Your task to perform on an android device: Open Reddit.com Image 0: 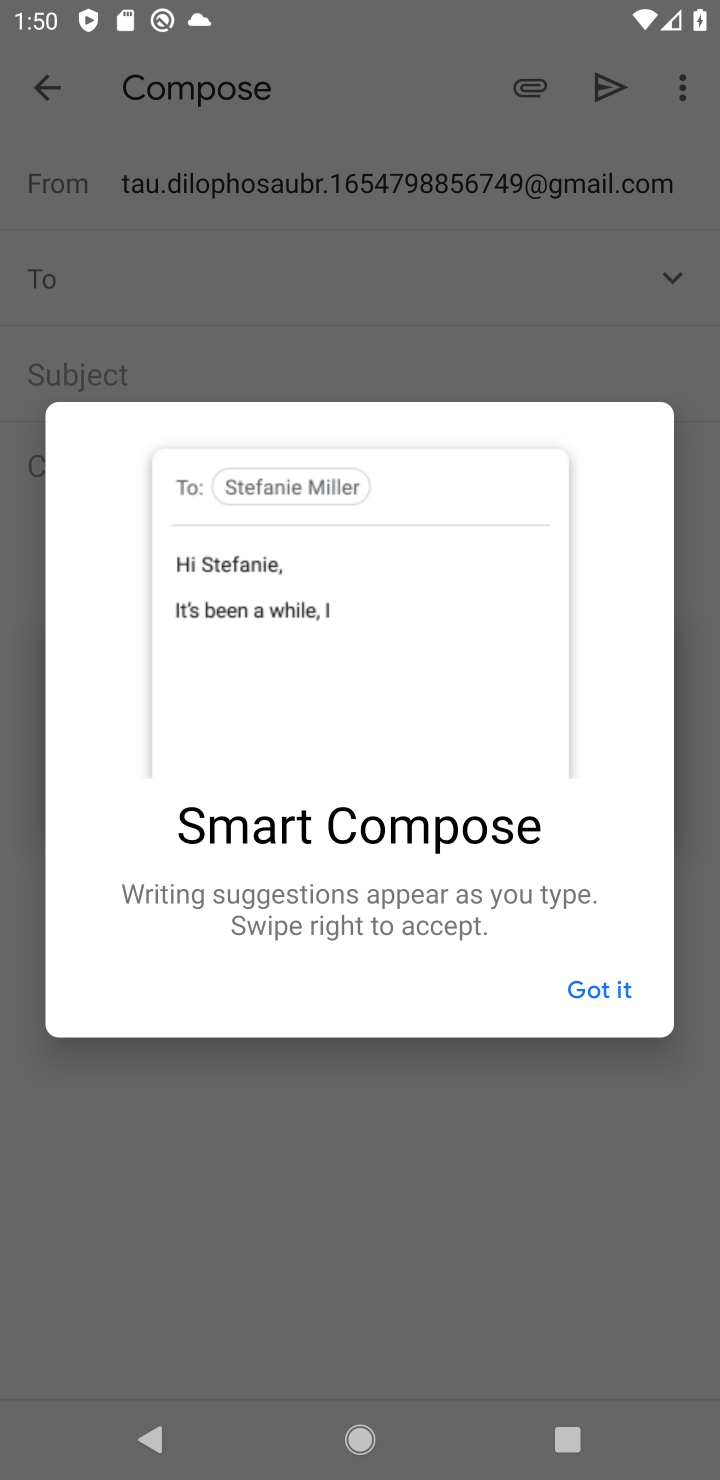
Step 0: press home button
Your task to perform on an android device: Open Reddit.com Image 1: 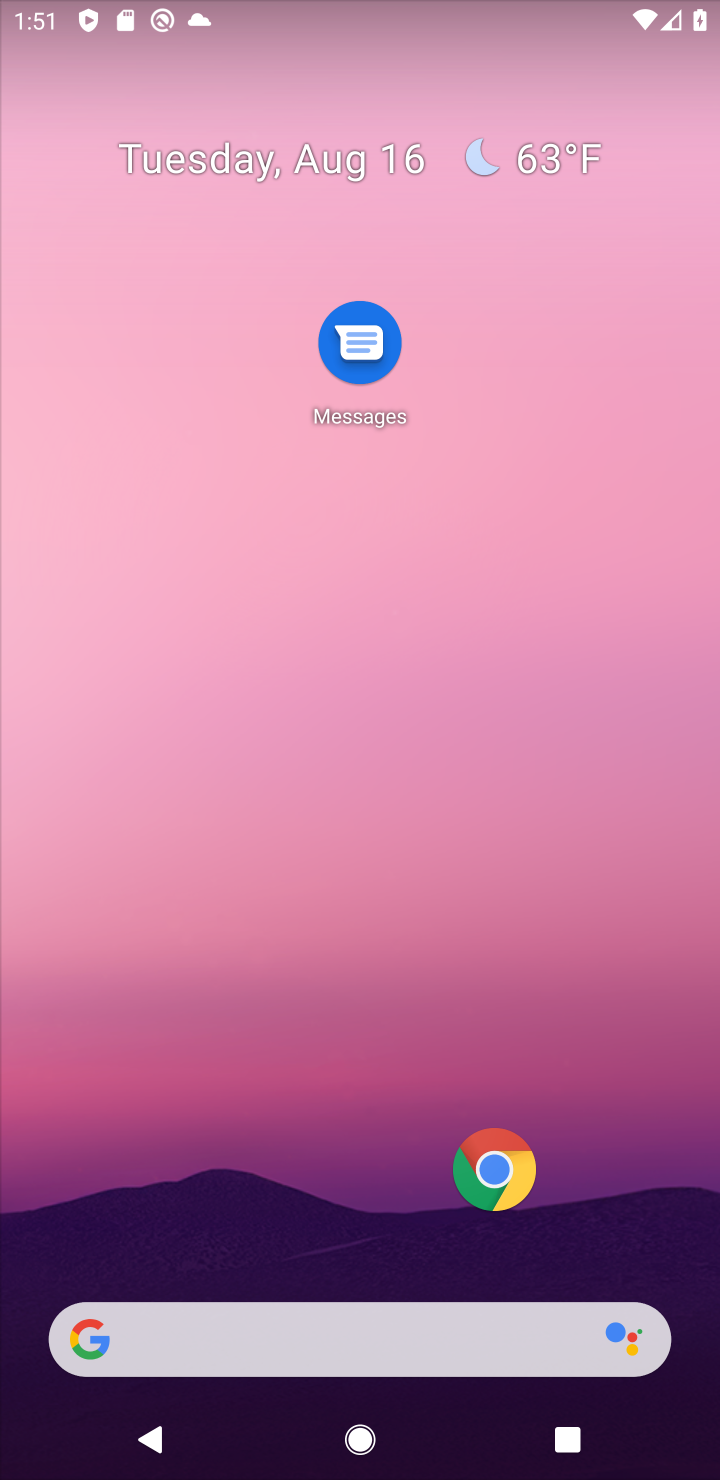
Step 1: click (173, 1345)
Your task to perform on an android device: Open Reddit.com Image 2: 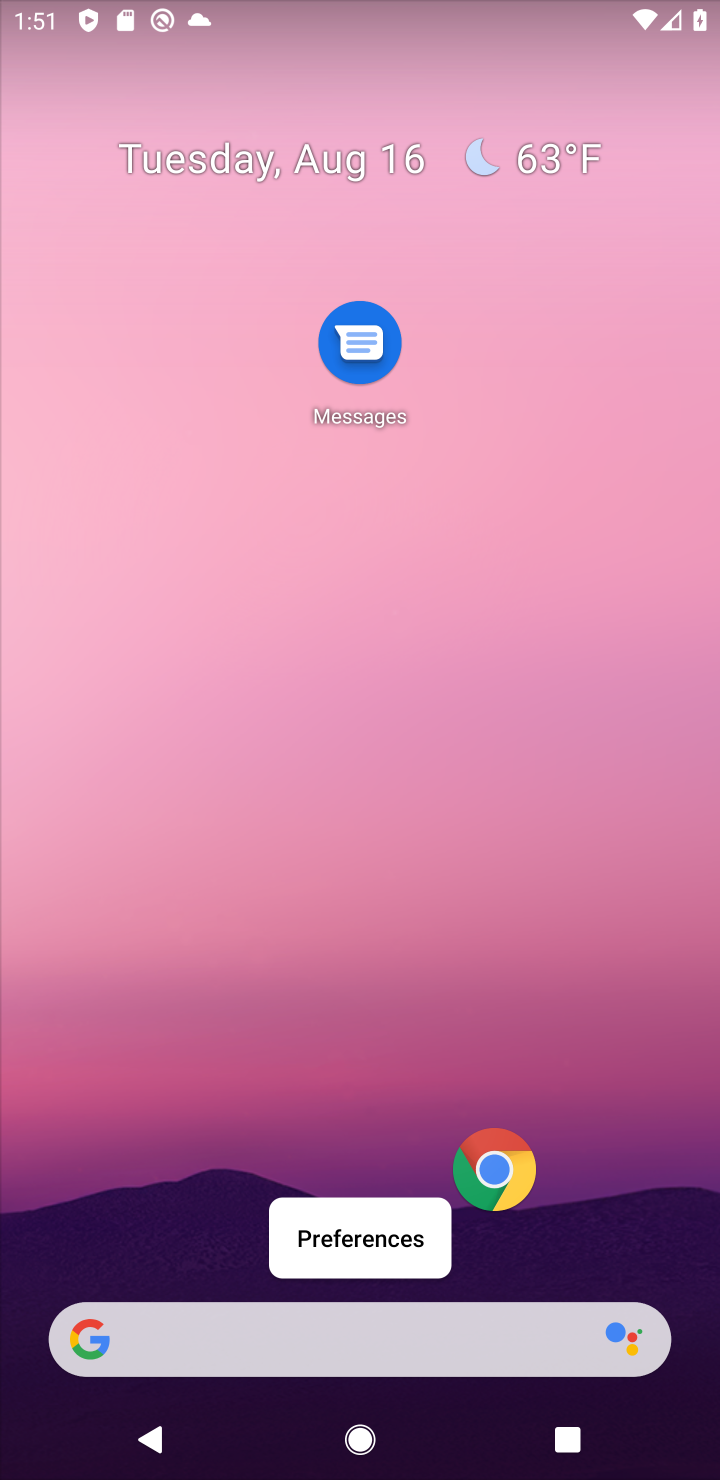
Step 2: click (173, 1345)
Your task to perform on an android device: Open Reddit.com Image 3: 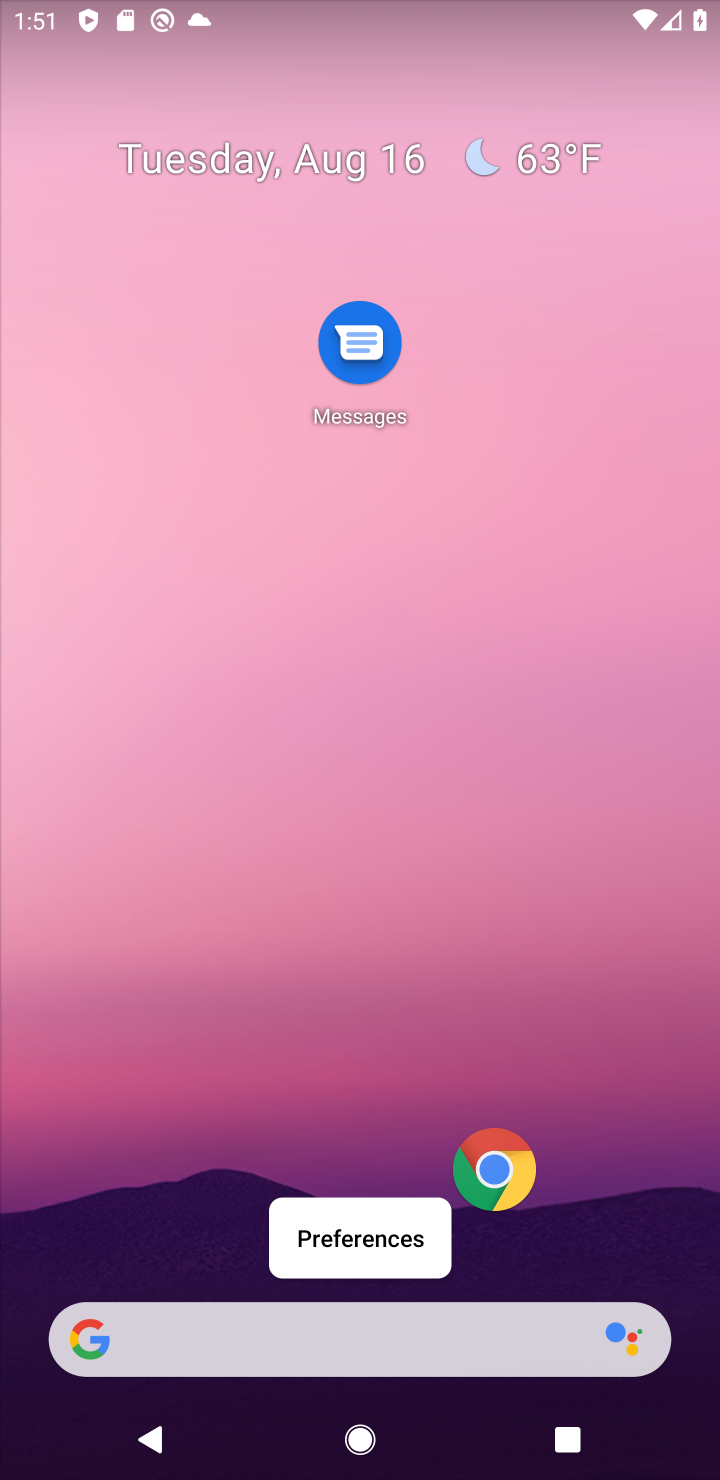
Step 3: click (173, 1345)
Your task to perform on an android device: Open Reddit.com Image 4: 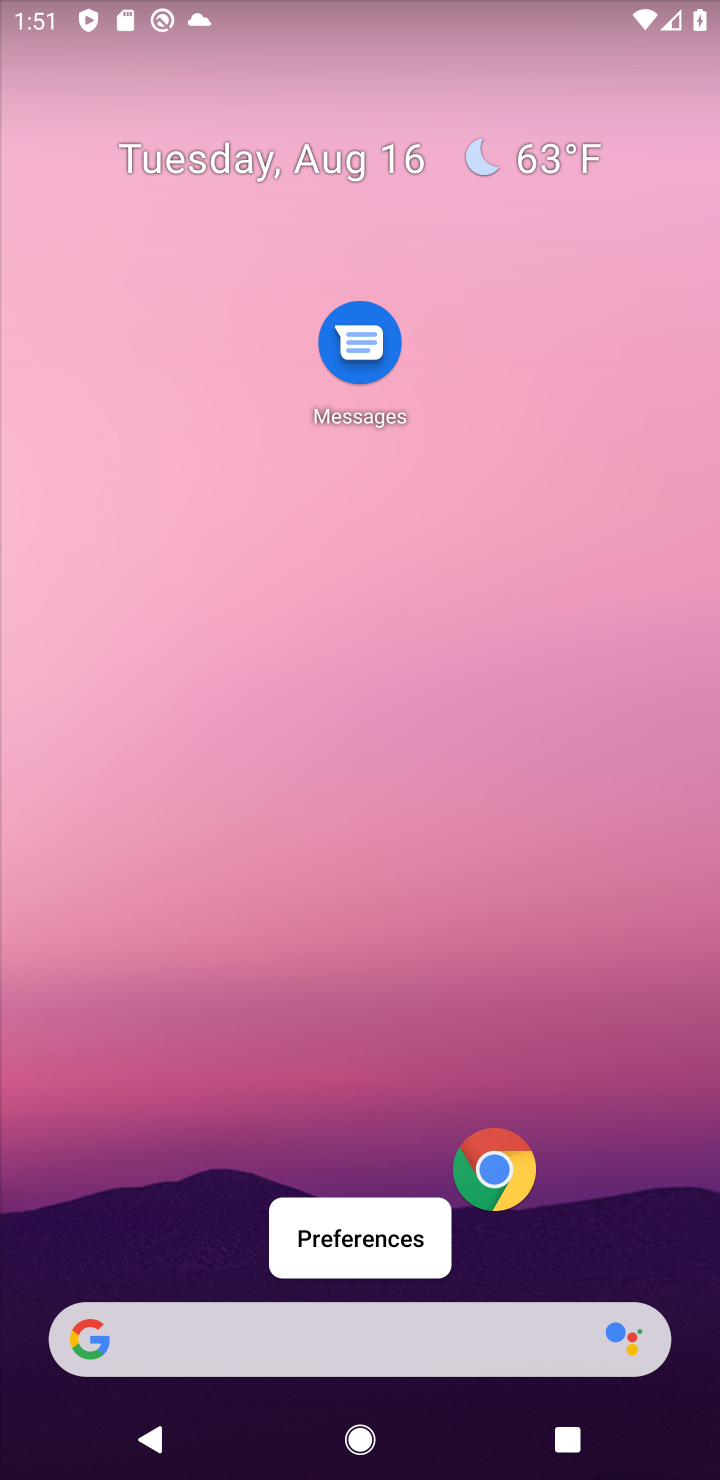
Step 4: click (173, 1345)
Your task to perform on an android device: Open Reddit.com Image 5: 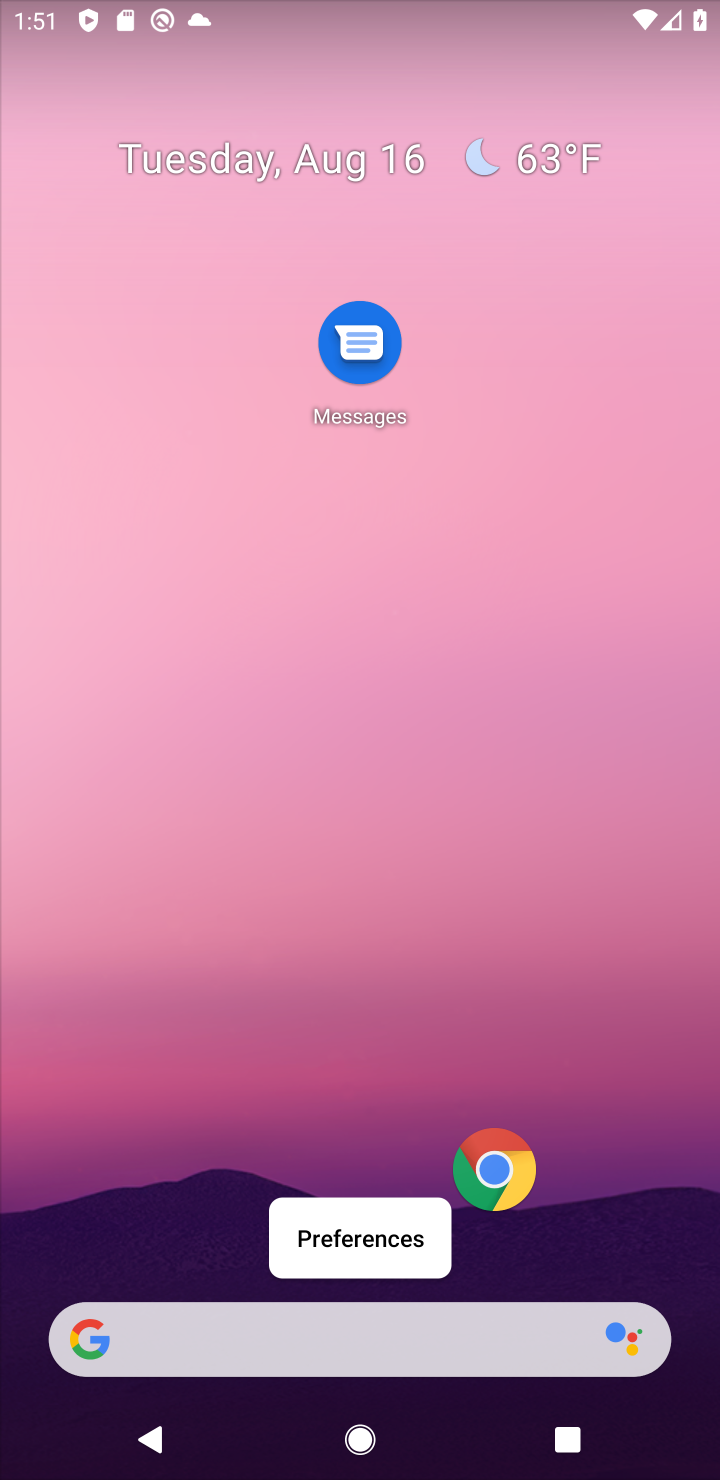
Step 5: task complete